Your task to perform on an android device: set the timer Image 0: 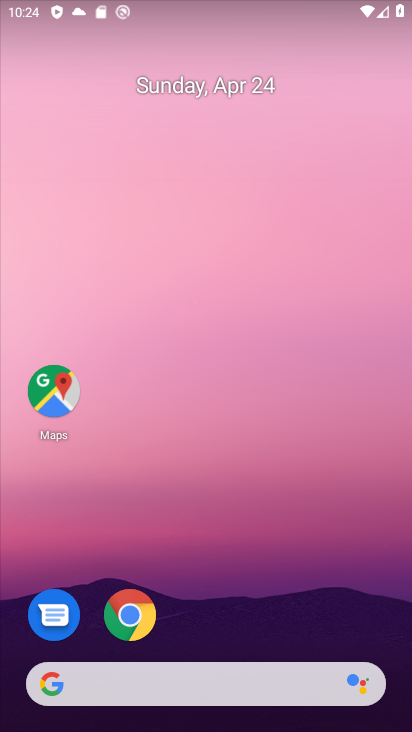
Step 0: drag from (218, 647) to (269, 55)
Your task to perform on an android device: set the timer Image 1: 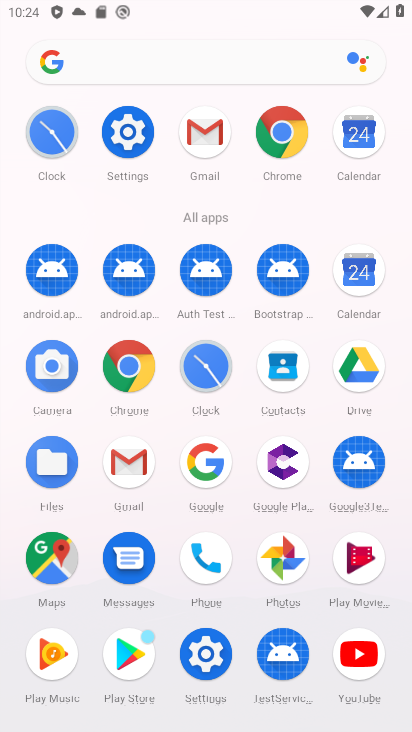
Step 1: click (203, 361)
Your task to perform on an android device: set the timer Image 2: 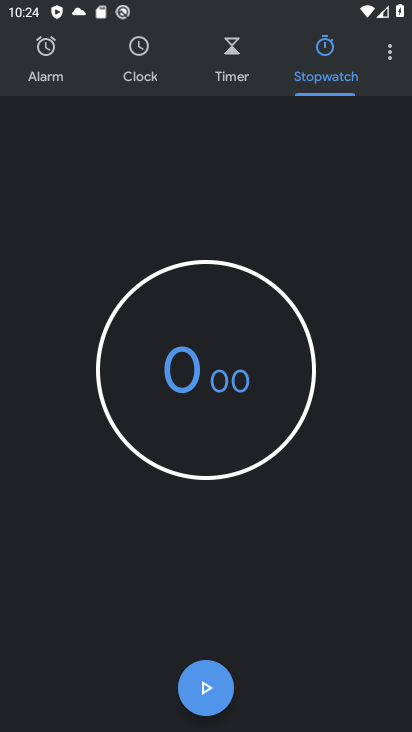
Step 2: click (231, 49)
Your task to perform on an android device: set the timer Image 3: 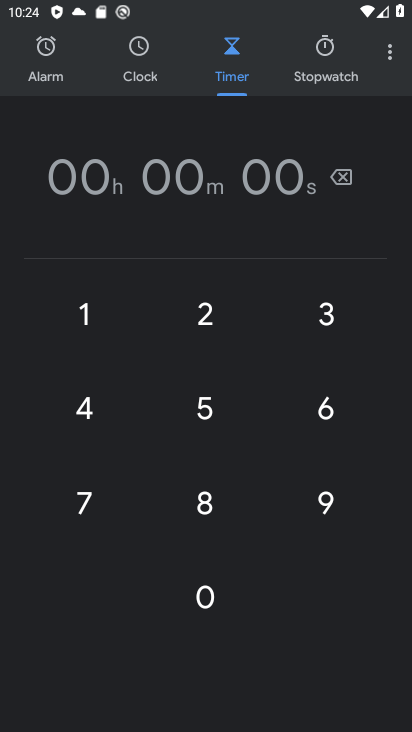
Step 3: click (324, 313)
Your task to perform on an android device: set the timer Image 4: 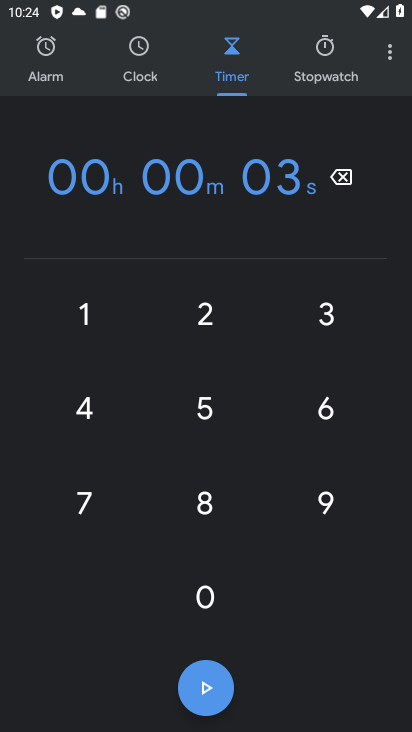
Step 4: click (324, 313)
Your task to perform on an android device: set the timer Image 5: 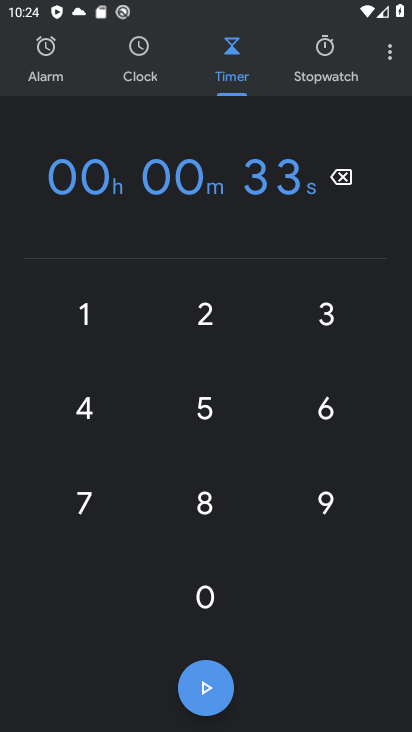
Step 5: click (208, 596)
Your task to perform on an android device: set the timer Image 6: 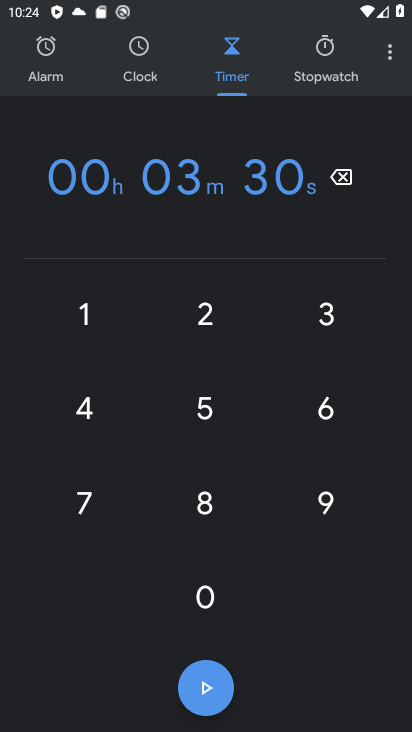
Step 6: click (203, 682)
Your task to perform on an android device: set the timer Image 7: 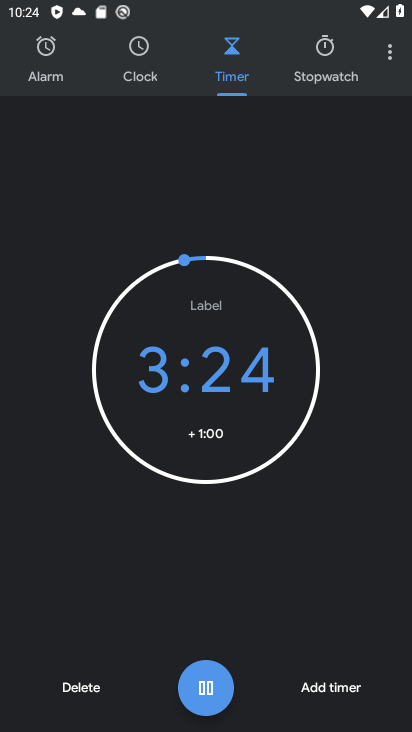
Step 7: click (200, 430)
Your task to perform on an android device: set the timer Image 8: 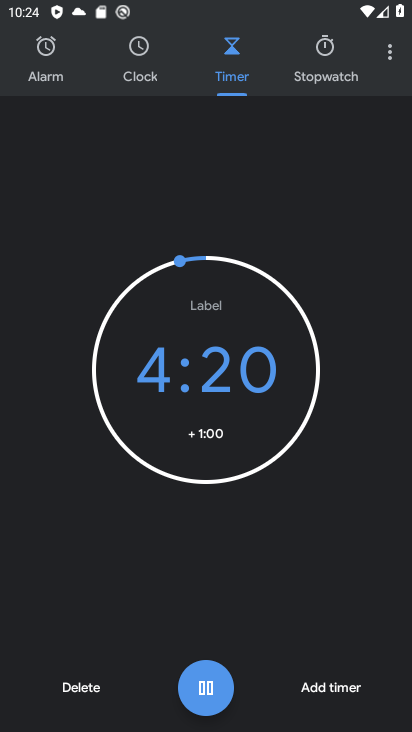
Step 8: click (86, 684)
Your task to perform on an android device: set the timer Image 9: 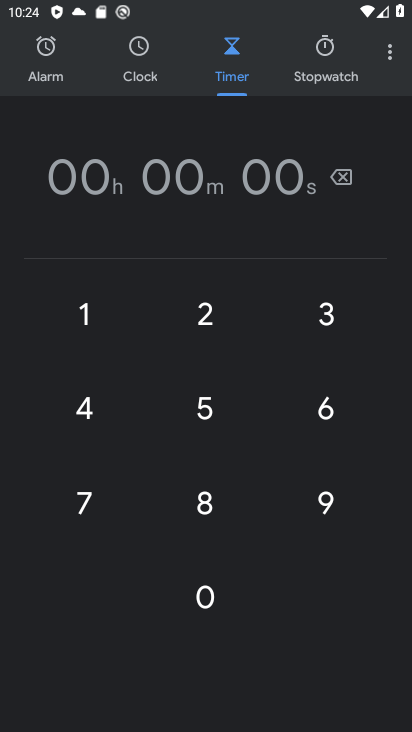
Step 9: task complete